Your task to perform on an android device: Open Android settings Image 0: 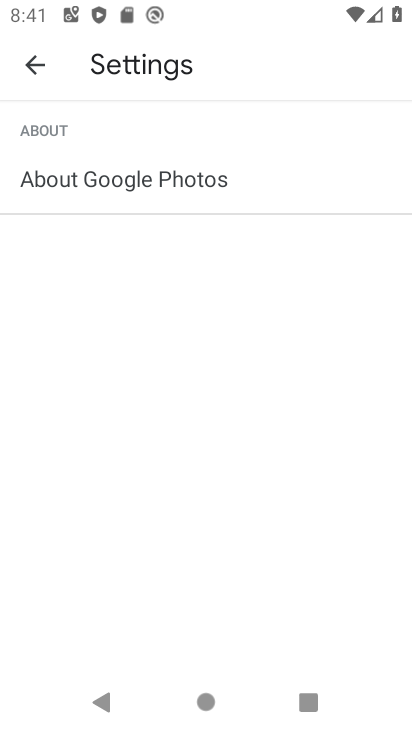
Step 0: press home button
Your task to perform on an android device: Open Android settings Image 1: 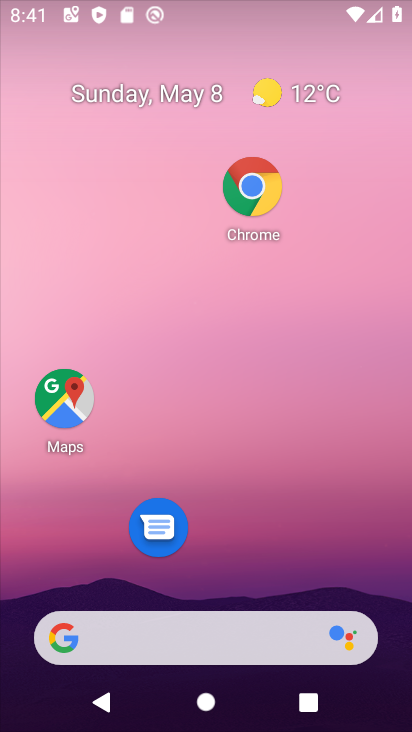
Step 1: drag from (248, 578) to (280, 217)
Your task to perform on an android device: Open Android settings Image 2: 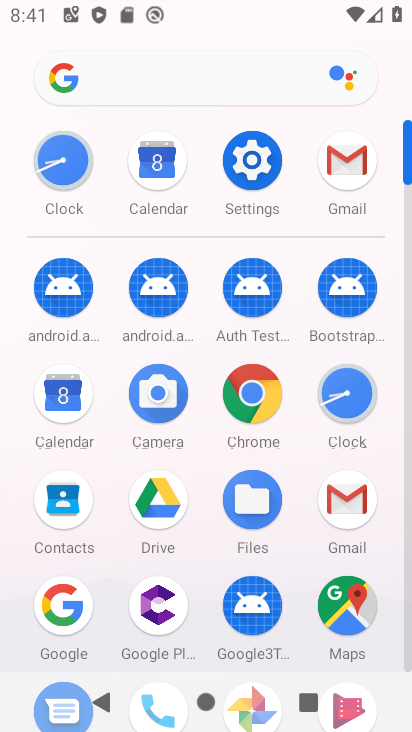
Step 2: click (257, 155)
Your task to perform on an android device: Open Android settings Image 3: 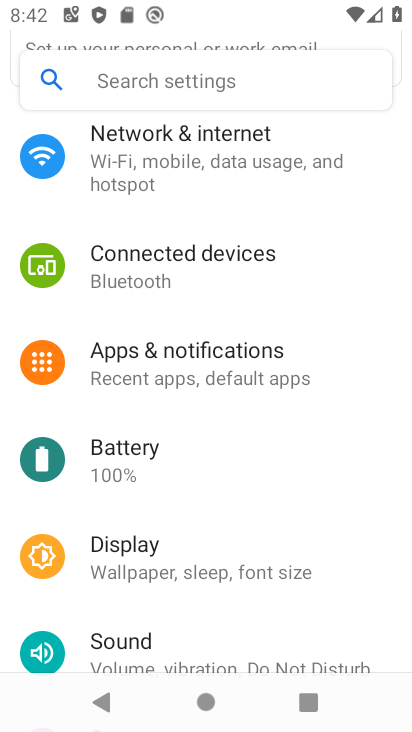
Step 3: task complete